Your task to perform on an android device: Show the shopping cart on bestbuy.com. Add macbook pro 15 inch to the cart on bestbuy.com, then select checkout. Image 0: 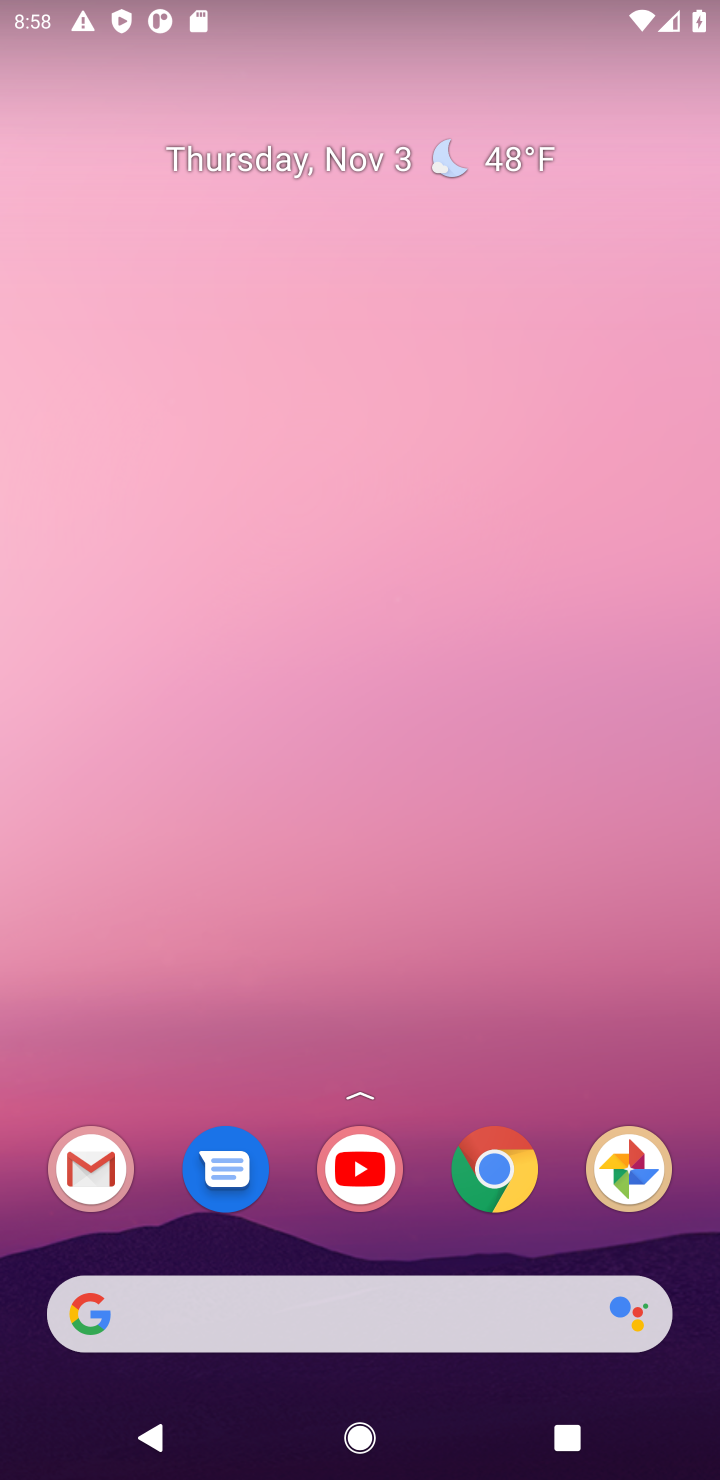
Step 0: drag from (402, 1237) to (455, 206)
Your task to perform on an android device: Show the shopping cart on bestbuy.com. Add macbook pro 15 inch to the cart on bestbuy.com, then select checkout. Image 1: 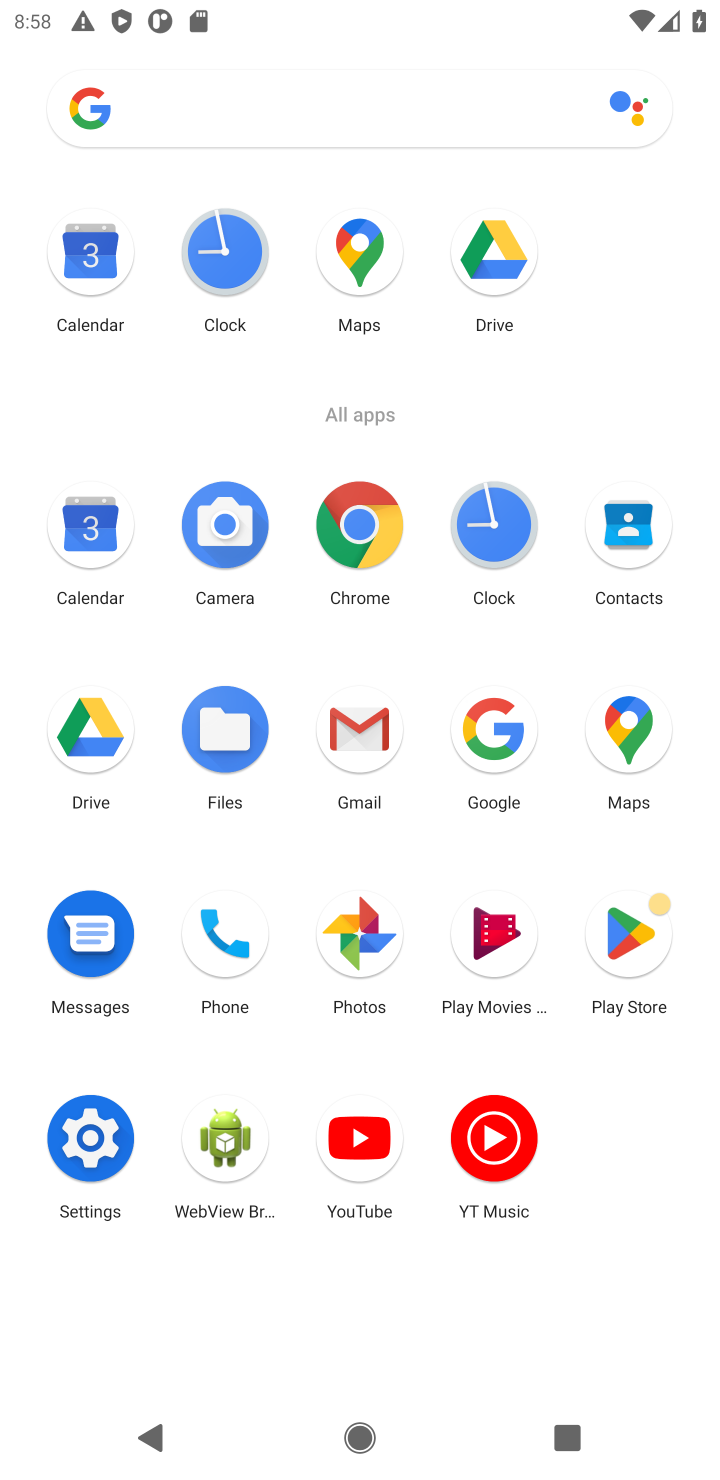
Step 1: click (362, 533)
Your task to perform on an android device: Show the shopping cart on bestbuy.com. Add macbook pro 15 inch to the cart on bestbuy.com, then select checkout. Image 2: 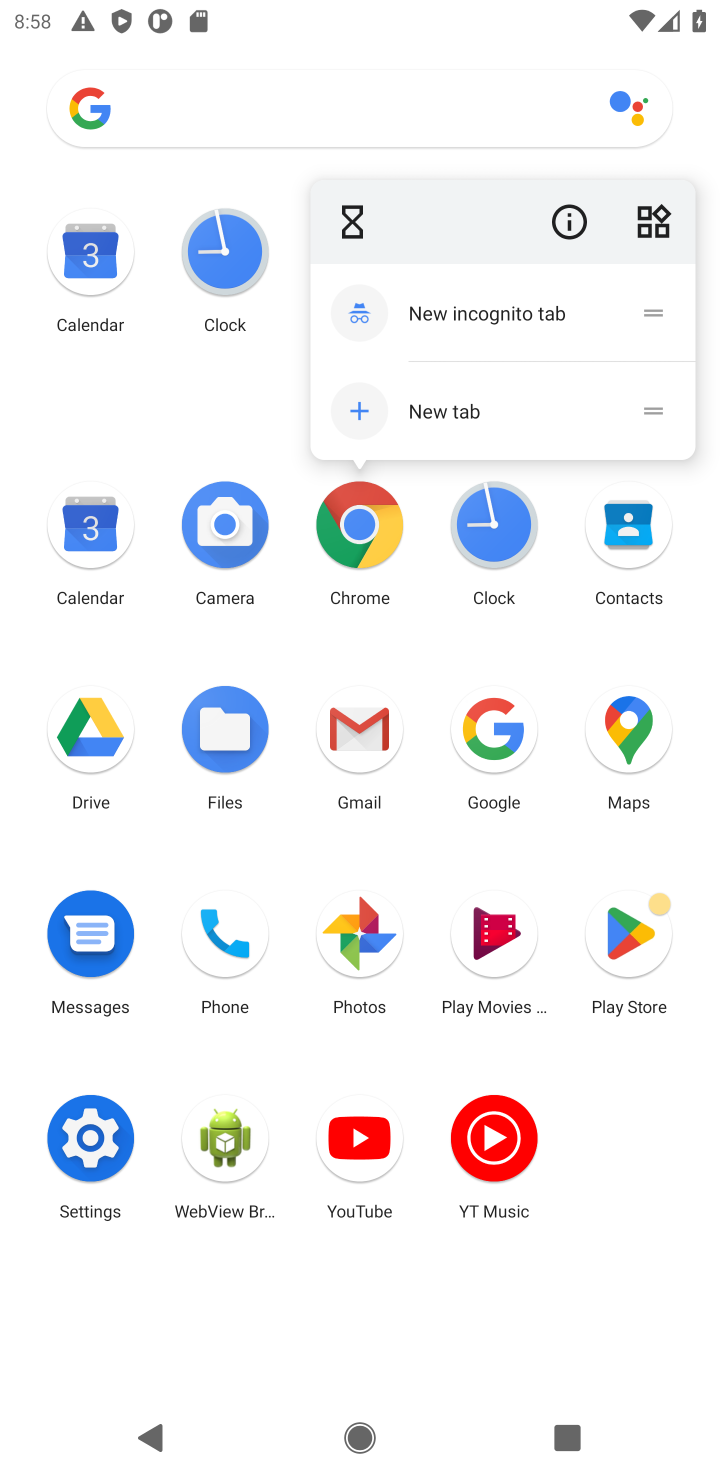
Step 2: click (356, 531)
Your task to perform on an android device: Show the shopping cart on bestbuy.com. Add macbook pro 15 inch to the cart on bestbuy.com, then select checkout. Image 3: 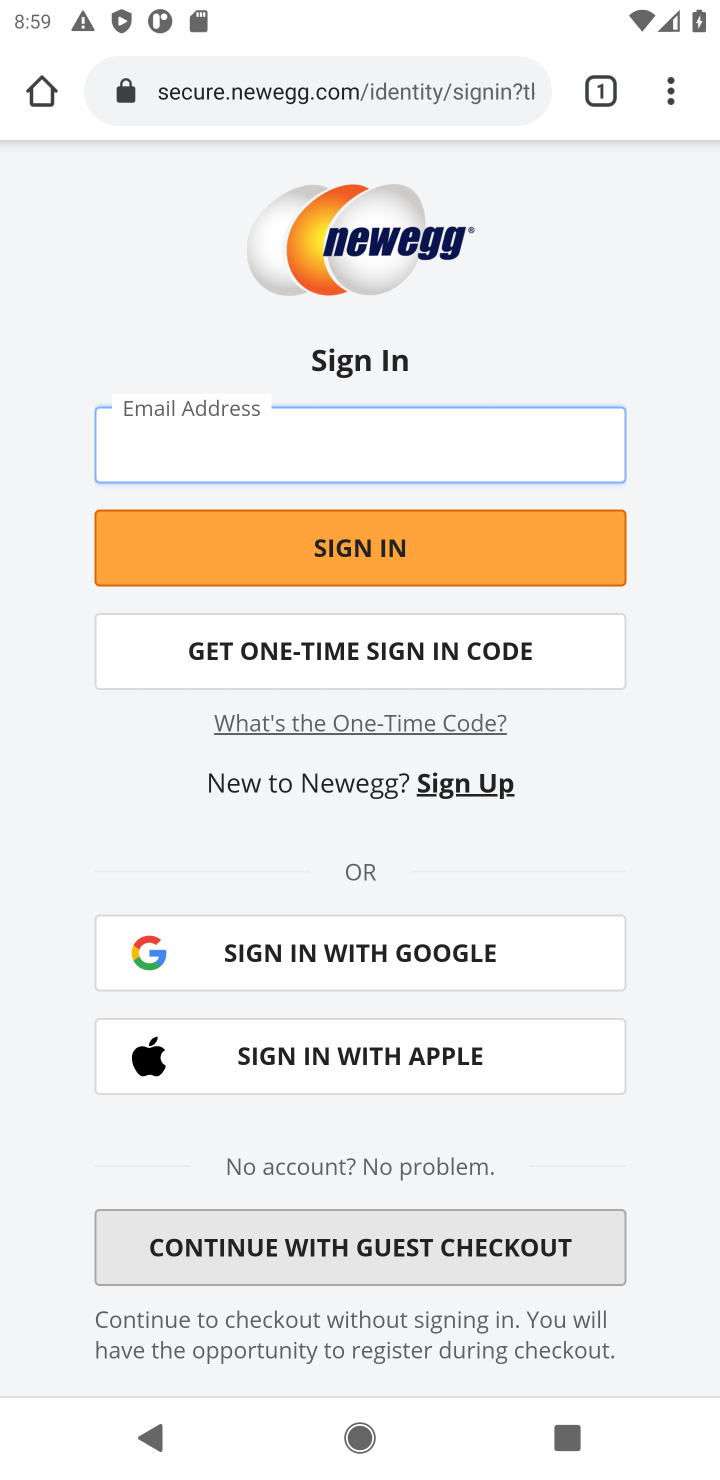
Step 3: click (286, 83)
Your task to perform on an android device: Show the shopping cart on bestbuy.com. Add macbook pro 15 inch to the cart on bestbuy.com, then select checkout. Image 4: 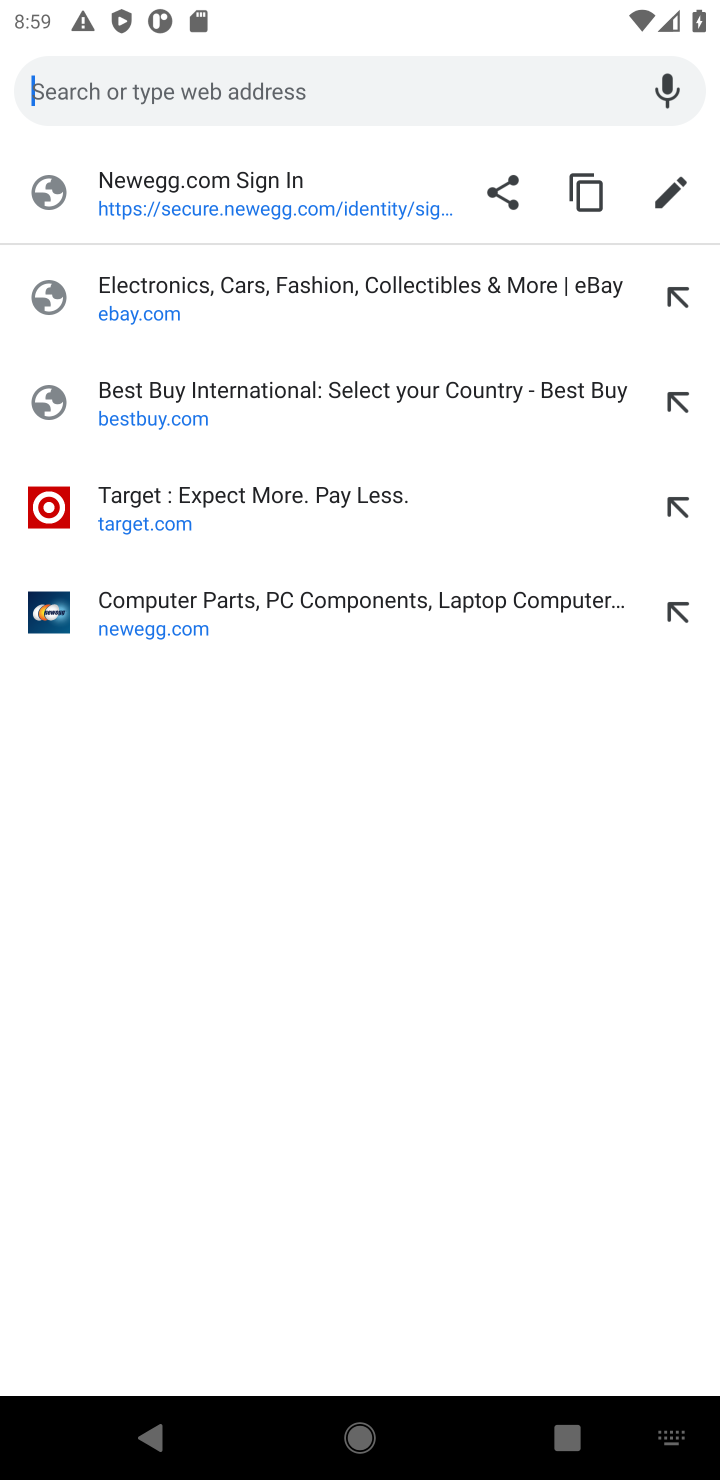
Step 4: type "bestfbuy.com"
Your task to perform on an android device: Show the shopping cart on bestbuy.com. Add macbook pro 15 inch to the cart on bestbuy.com, then select checkout. Image 5: 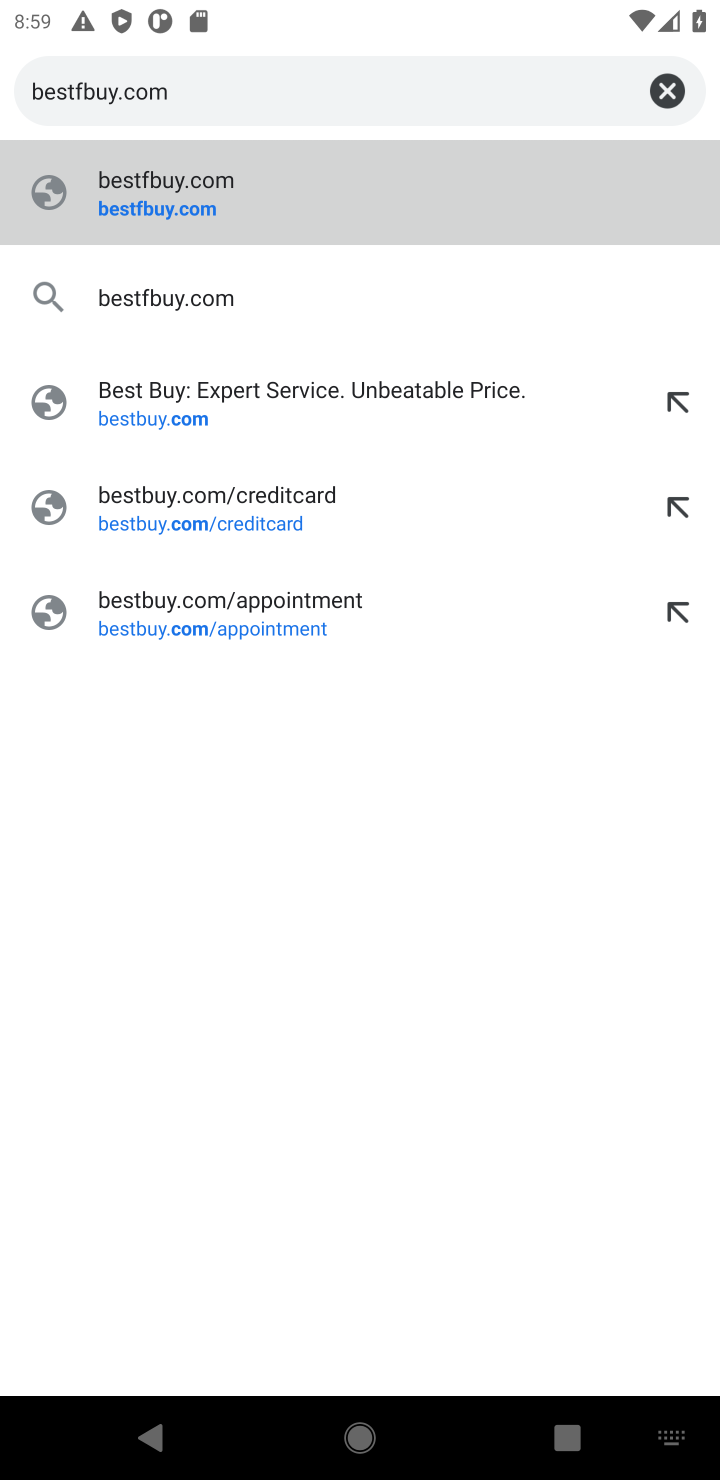
Step 5: press enter
Your task to perform on an android device: Show the shopping cart on bestbuy.com. Add macbook pro 15 inch to the cart on bestbuy.com, then select checkout. Image 6: 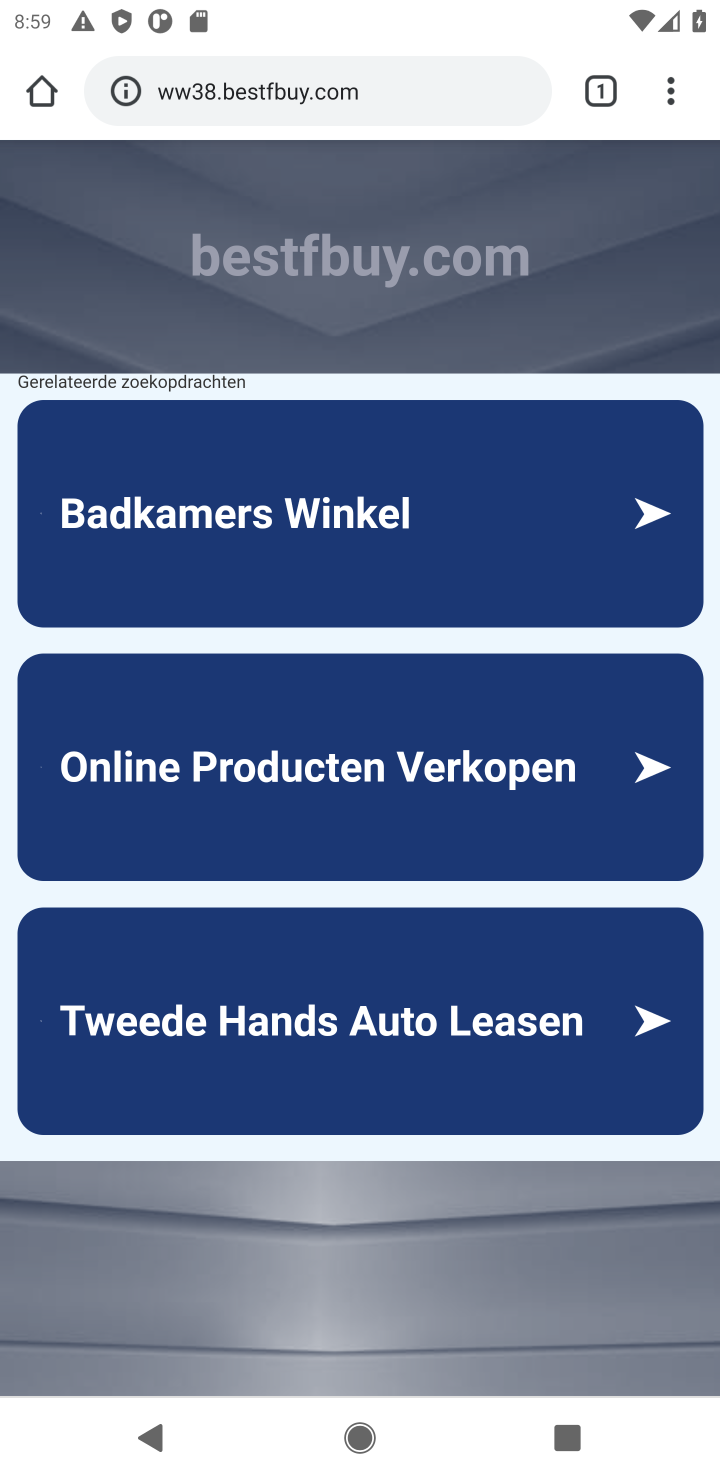
Step 6: click (369, 88)
Your task to perform on an android device: Show the shopping cart on bestbuy.com. Add macbook pro 15 inch to the cart on bestbuy.com, then select checkout. Image 7: 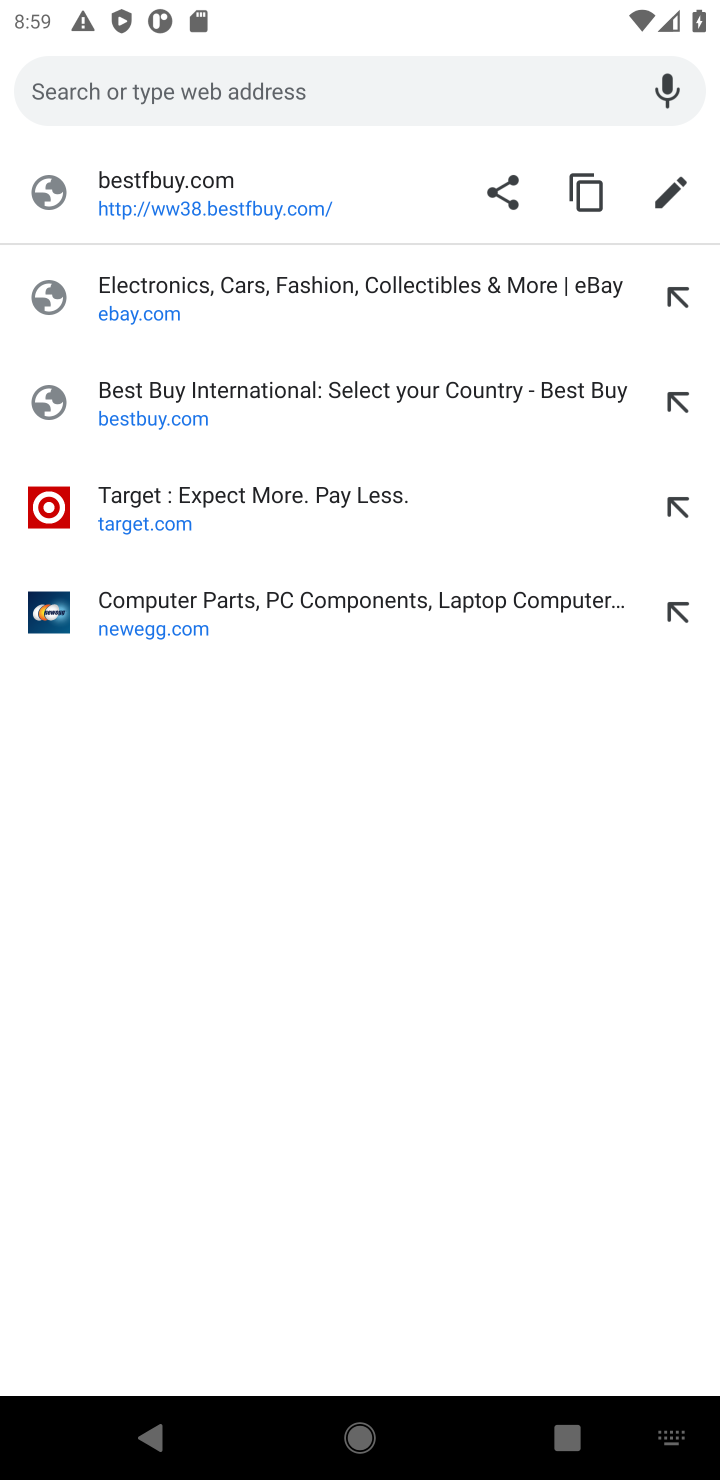
Step 7: type "bestbuy.com"
Your task to perform on an android device: Show the shopping cart on bestbuy.com. Add macbook pro 15 inch to the cart on bestbuy.com, then select checkout. Image 8: 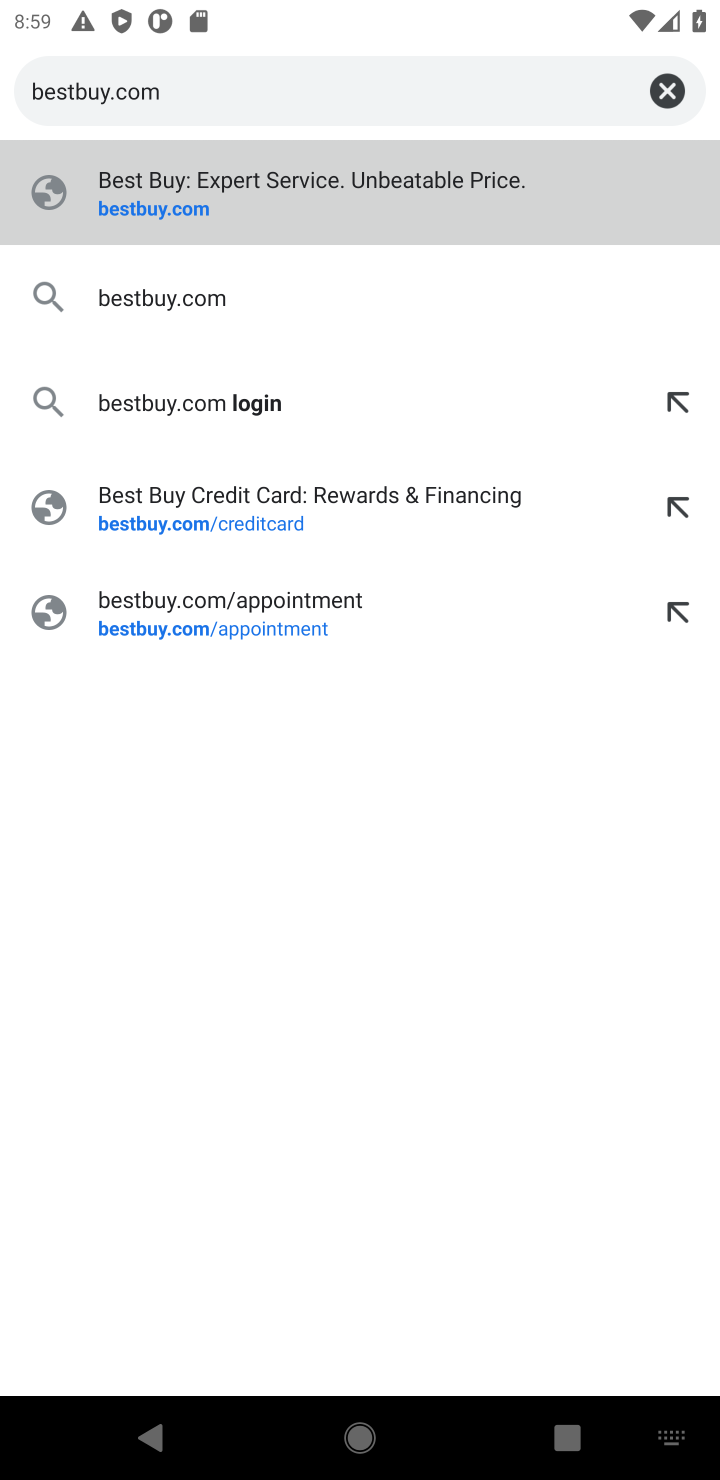
Step 8: press enter
Your task to perform on an android device: Show the shopping cart on bestbuy.com. Add macbook pro 15 inch to the cart on bestbuy.com, then select checkout. Image 9: 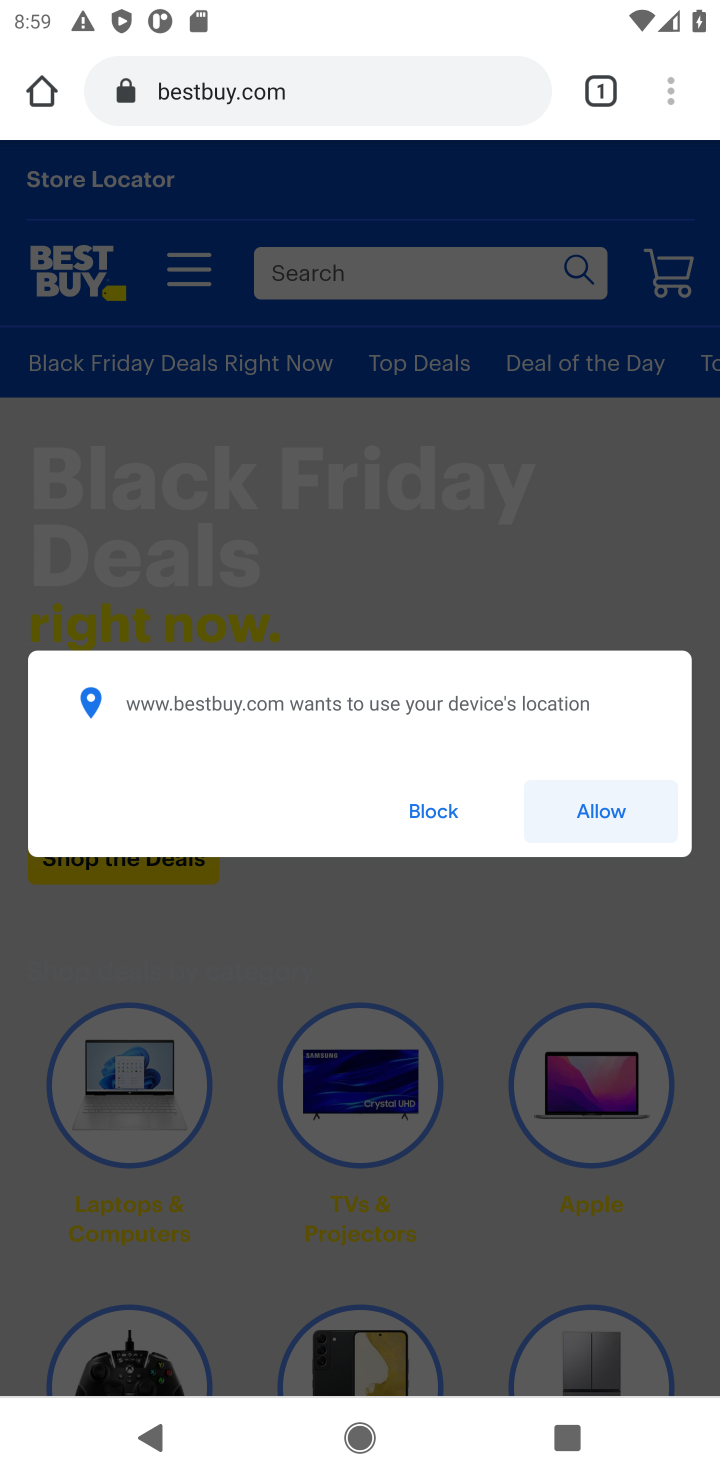
Step 9: click (429, 802)
Your task to perform on an android device: Show the shopping cart on bestbuy.com. Add macbook pro 15 inch to the cart on bestbuy.com, then select checkout. Image 10: 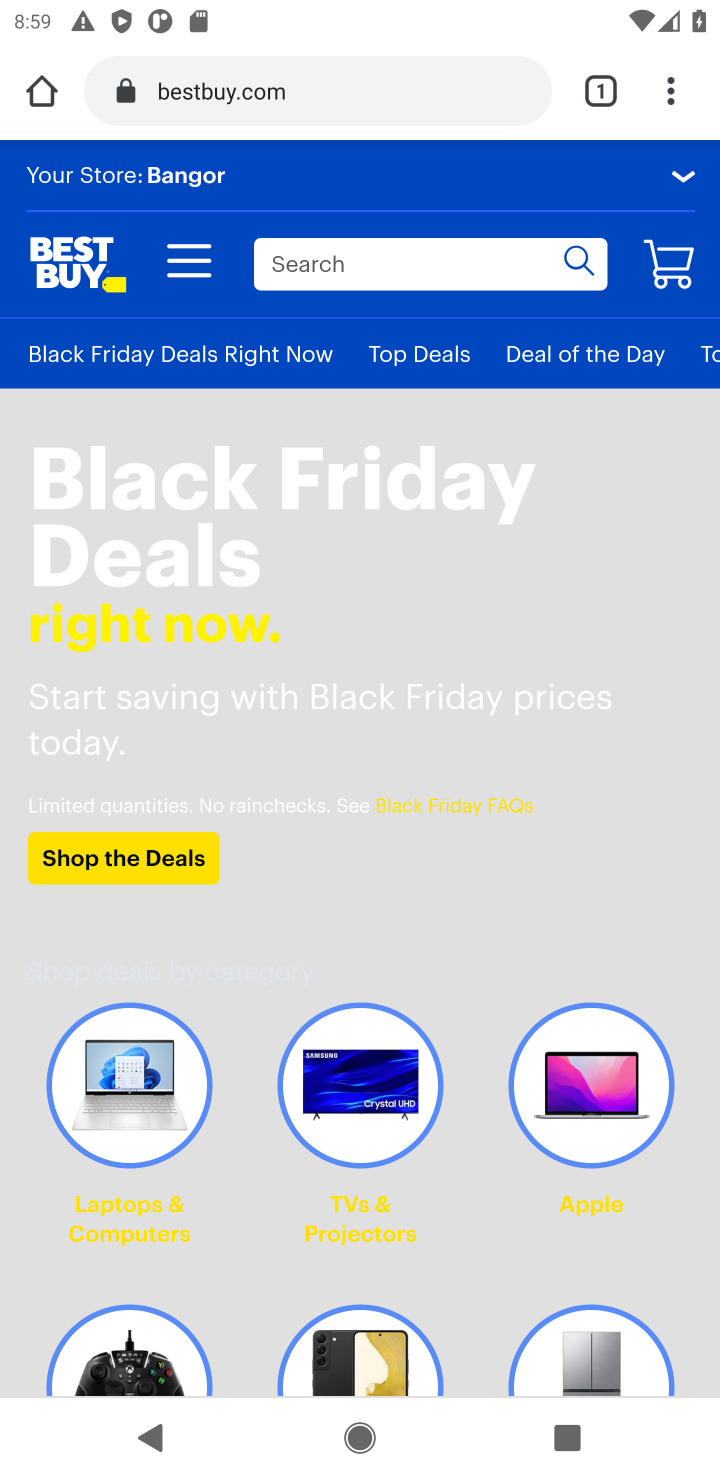
Step 10: click (666, 267)
Your task to perform on an android device: Show the shopping cart on bestbuy.com. Add macbook pro 15 inch to the cart on bestbuy.com, then select checkout. Image 11: 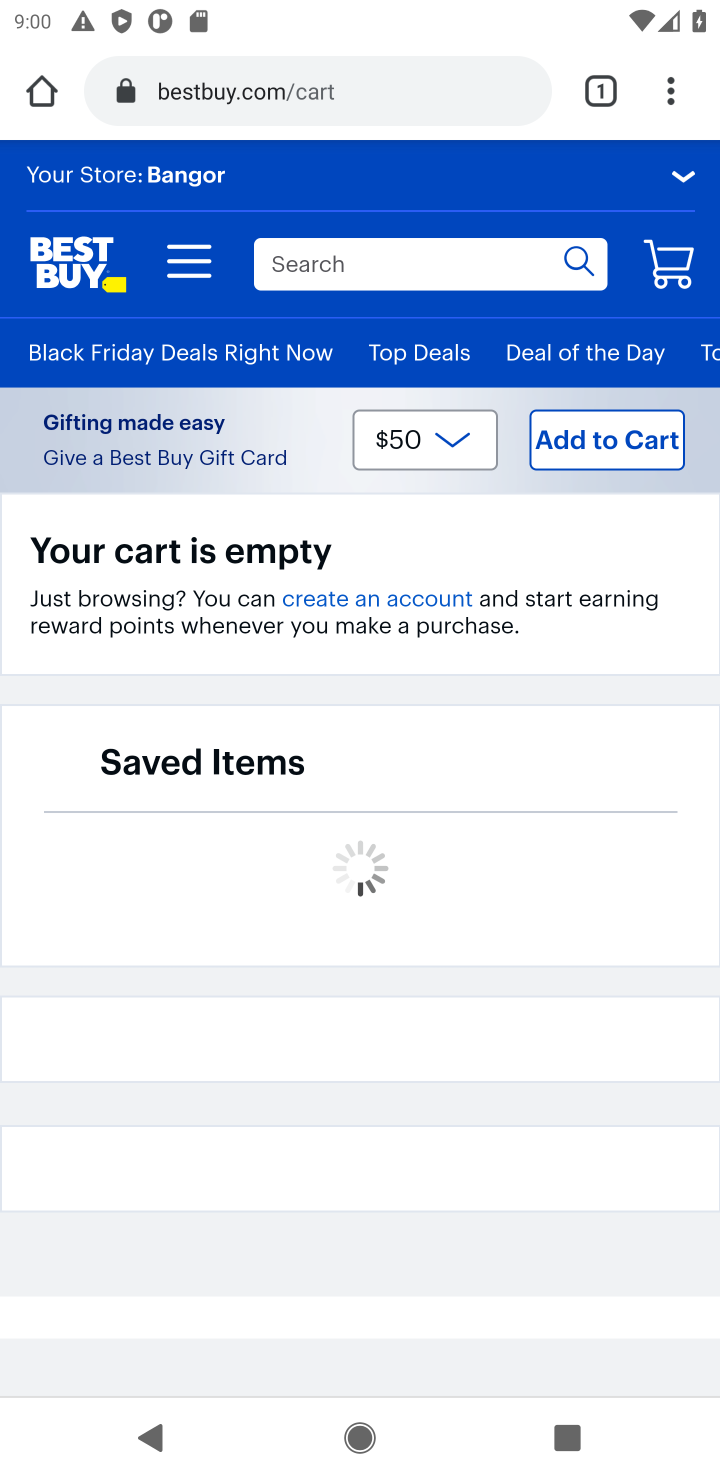
Step 11: click (285, 260)
Your task to perform on an android device: Show the shopping cart on bestbuy.com. Add macbook pro 15 inch to the cart on bestbuy.com, then select checkout. Image 12: 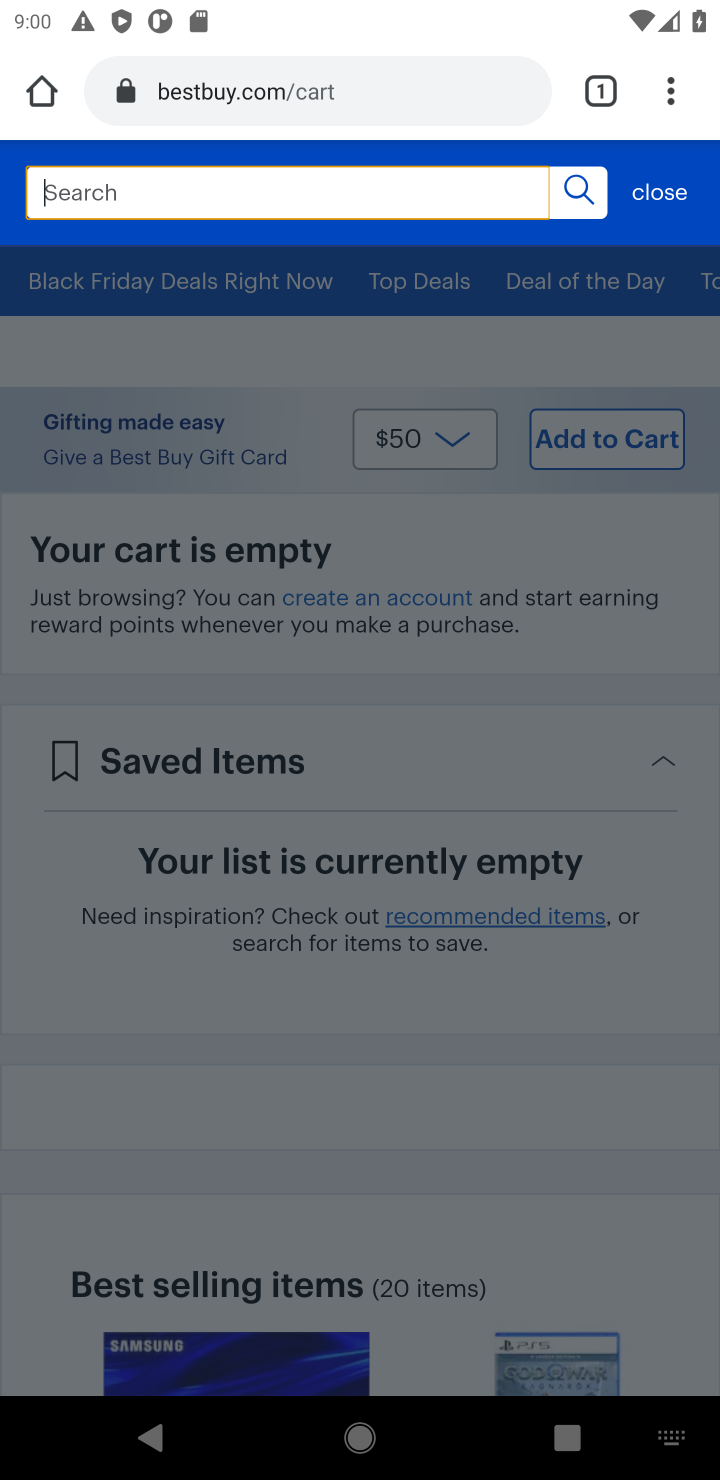
Step 12: type "add macbook pro 15"
Your task to perform on an android device: Show the shopping cart on bestbuy.com. Add macbook pro 15 inch to the cart on bestbuy.com, then select checkout. Image 13: 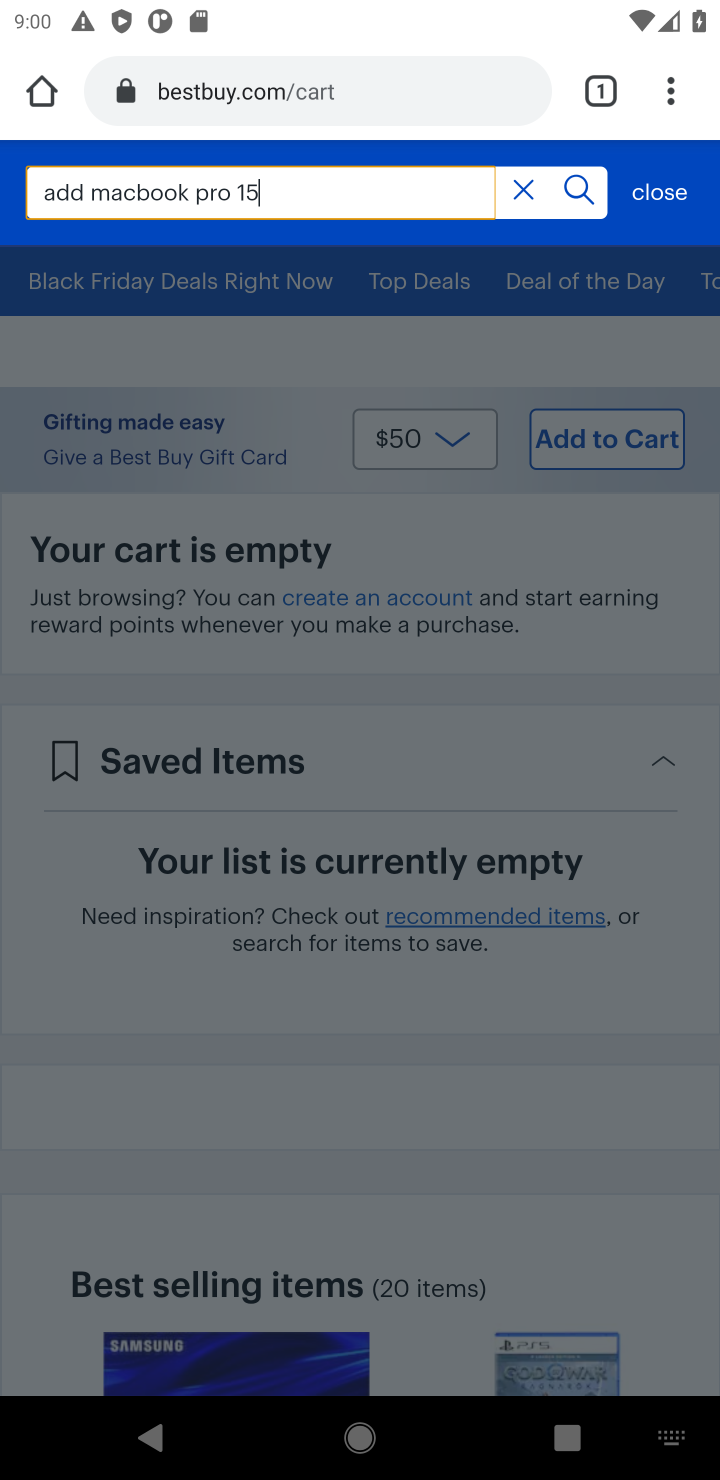
Step 13: press enter
Your task to perform on an android device: Show the shopping cart on bestbuy.com. Add macbook pro 15 inch to the cart on bestbuy.com, then select checkout. Image 14: 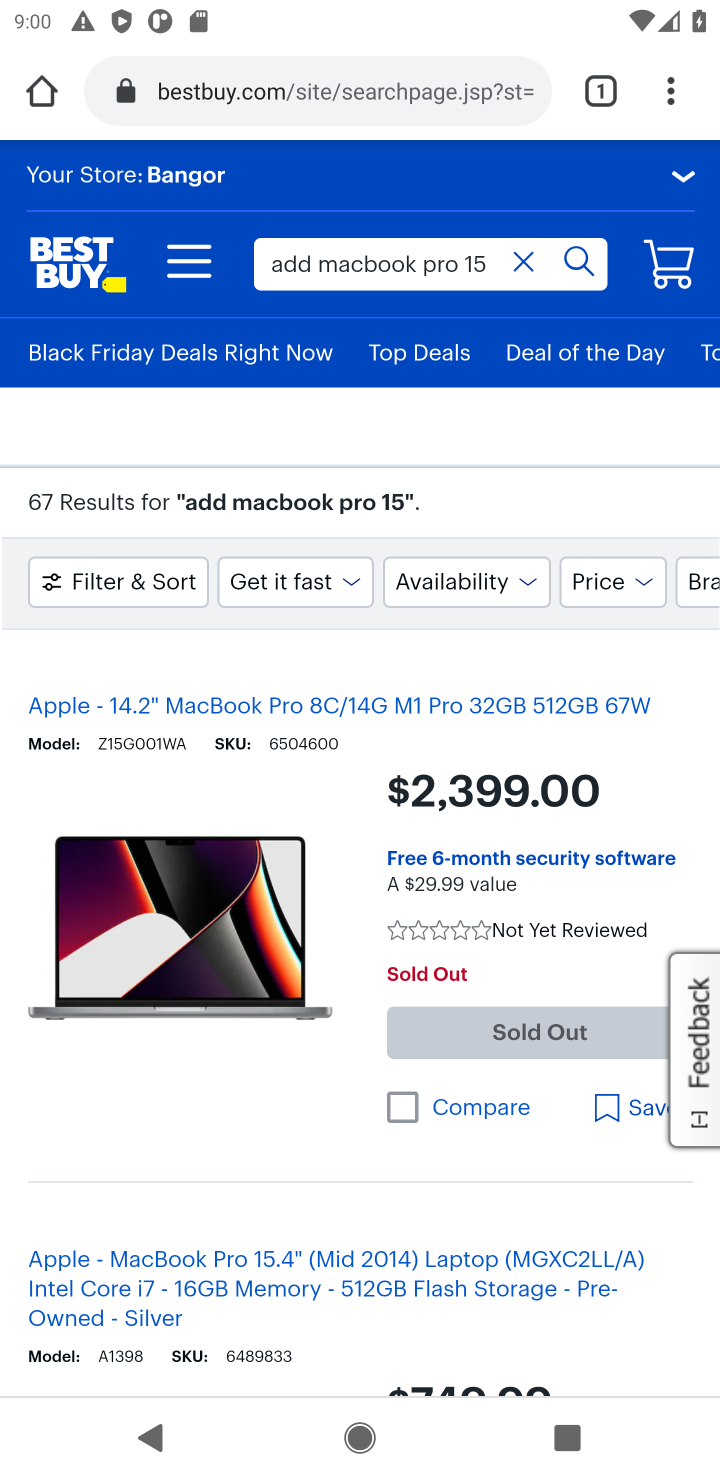
Step 14: drag from (350, 1263) to (271, 403)
Your task to perform on an android device: Show the shopping cart on bestbuy.com. Add macbook pro 15 inch to the cart on bestbuy.com, then select checkout. Image 15: 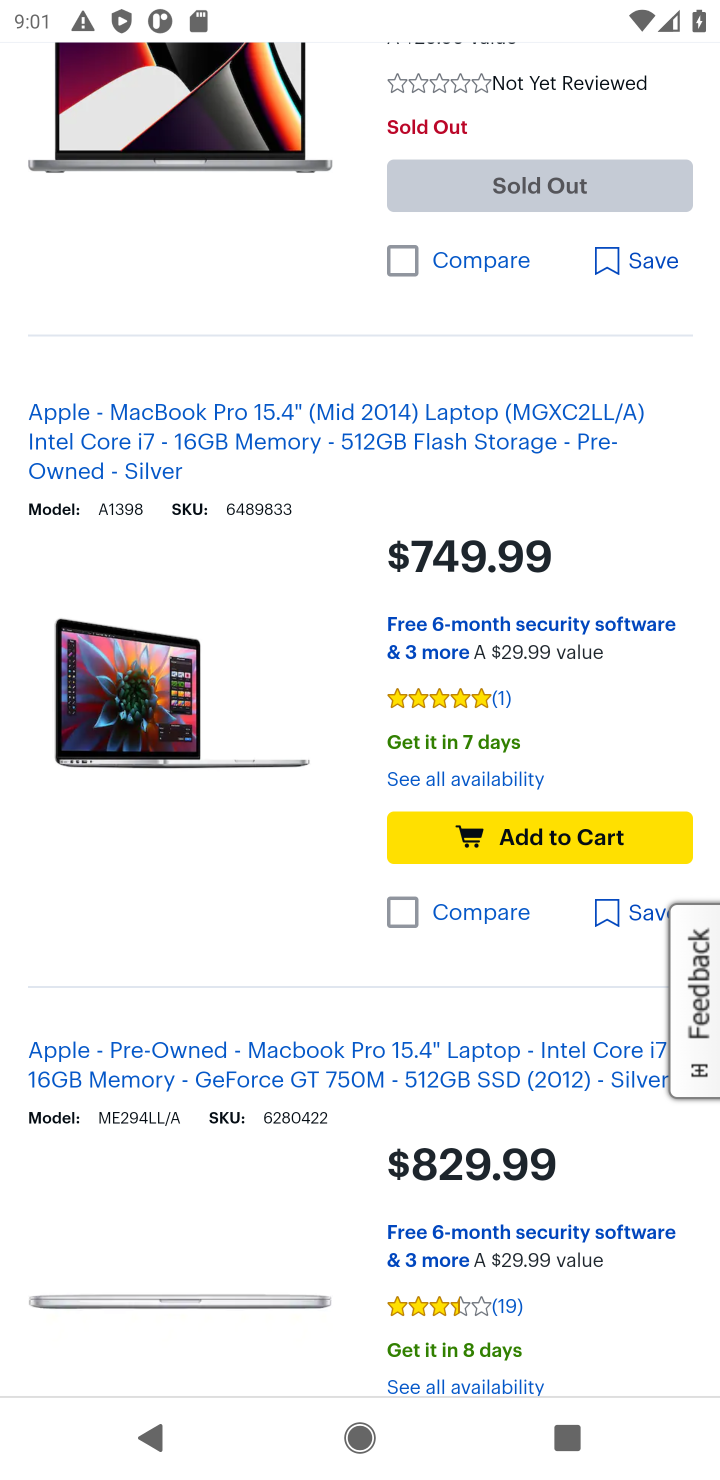
Step 15: drag from (218, 1174) to (196, 405)
Your task to perform on an android device: Show the shopping cart on bestbuy.com. Add macbook pro 15 inch to the cart on bestbuy.com, then select checkout. Image 16: 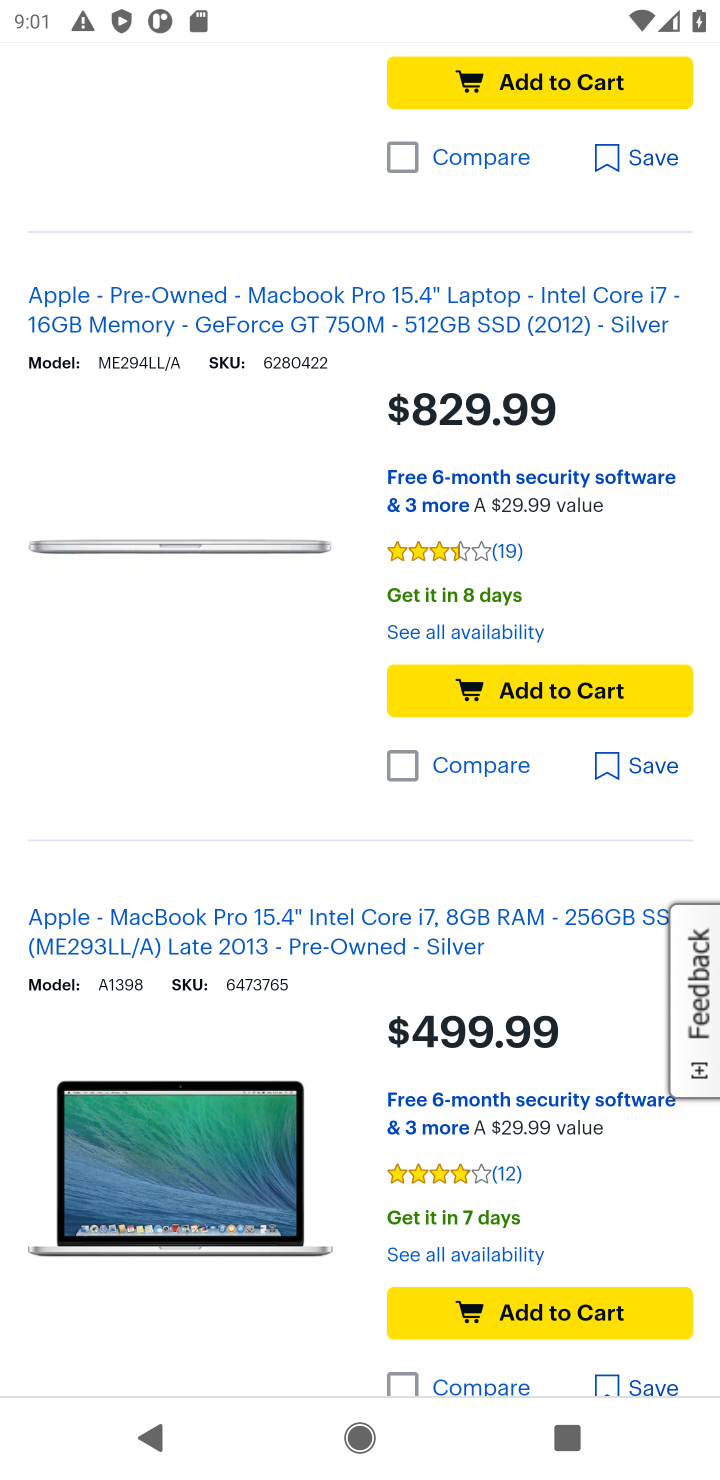
Step 16: drag from (329, 1160) to (389, 542)
Your task to perform on an android device: Show the shopping cart on bestbuy.com. Add macbook pro 15 inch to the cart on bestbuy.com, then select checkout. Image 17: 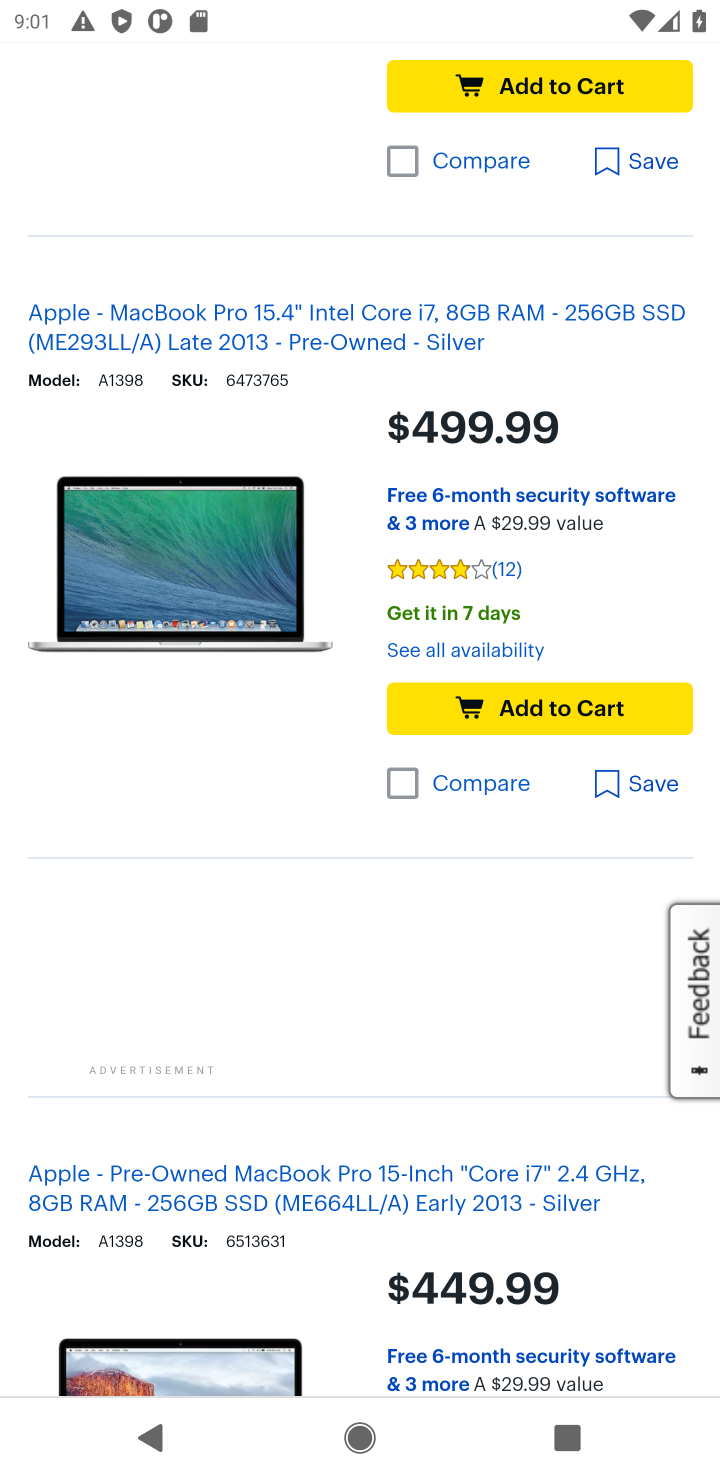
Step 17: drag from (456, 1062) to (336, 370)
Your task to perform on an android device: Show the shopping cart on bestbuy.com. Add macbook pro 15 inch to the cart on bestbuy.com, then select checkout. Image 18: 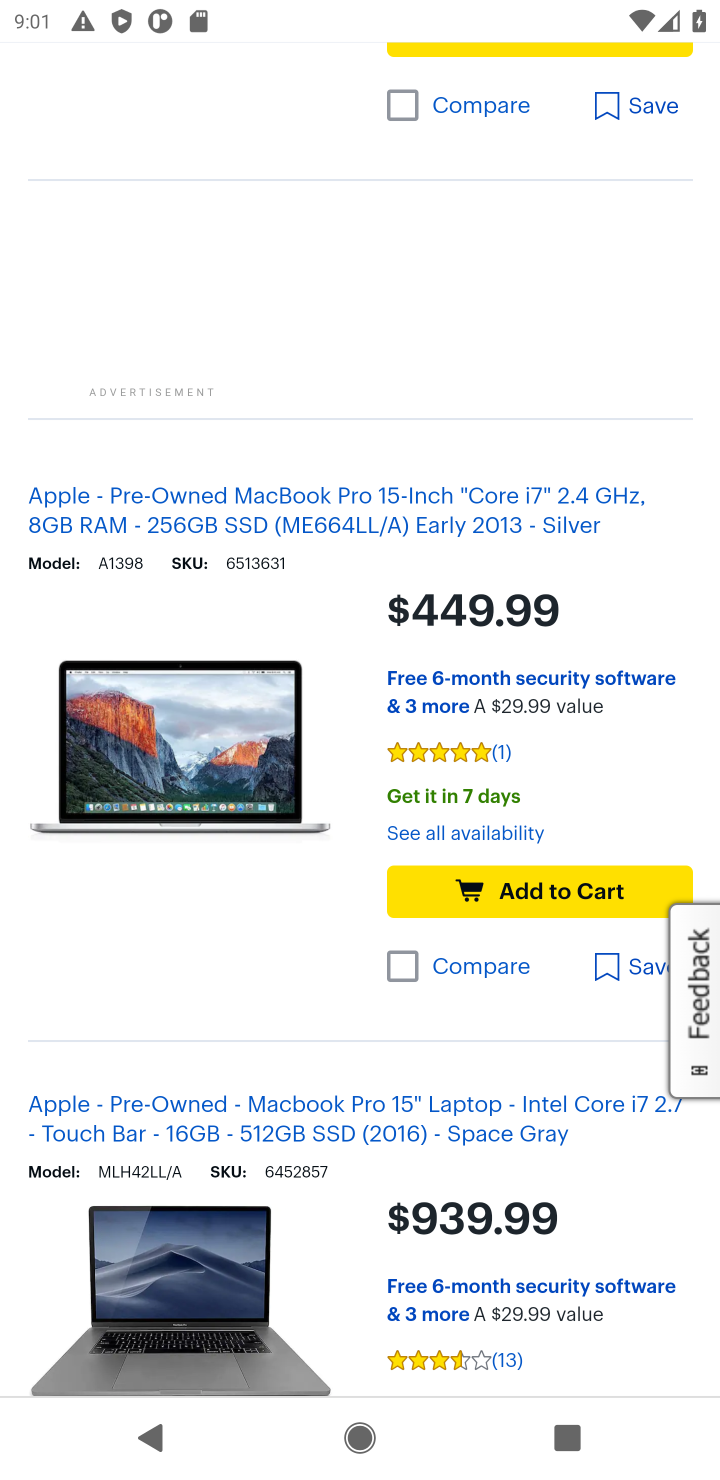
Step 18: drag from (374, 503) to (416, 1092)
Your task to perform on an android device: Show the shopping cart on bestbuy.com. Add macbook pro 15 inch to the cart on bestbuy.com, then select checkout. Image 19: 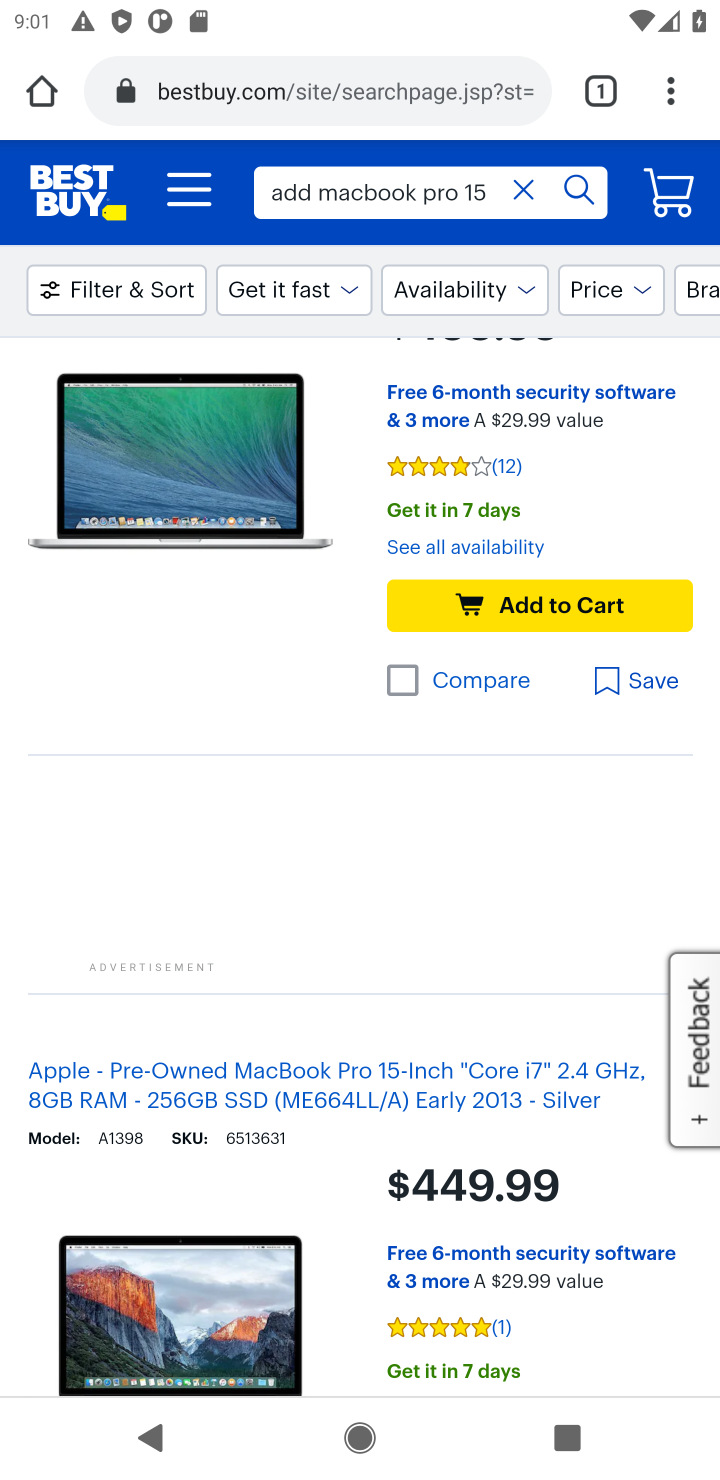
Step 19: drag from (305, 471) to (328, 255)
Your task to perform on an android device: Show the shopping cart on bestbuy.com. Add macbook pro 15 inch to the cart on bestbuy.com, then select checkout. Image 20: 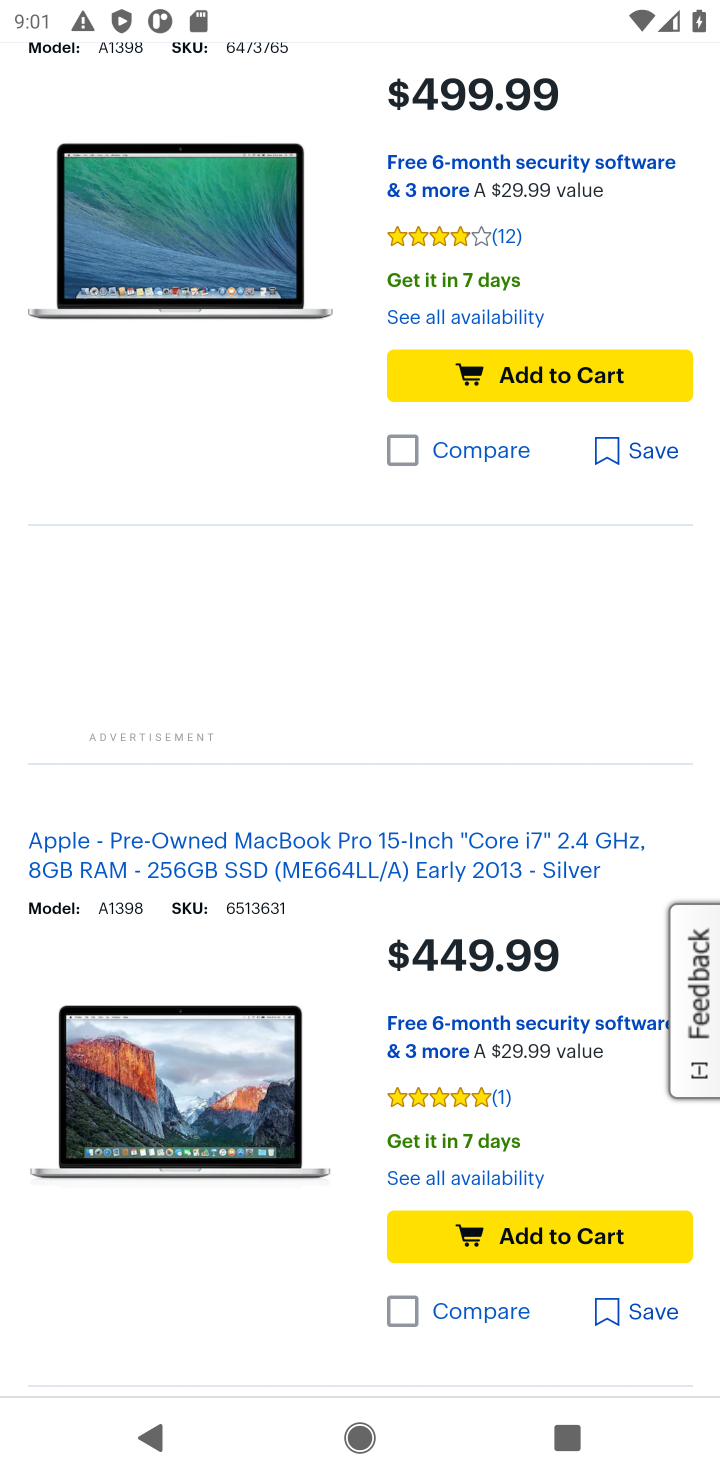
Step 20: drag from (365, 812) to (397, 552)
Your task to perform on an android device: Show the shopping cart on bestbuy.com. Add macbook pro 15 inch to the cart on bestbuy.com, then select checkout. Image 21: 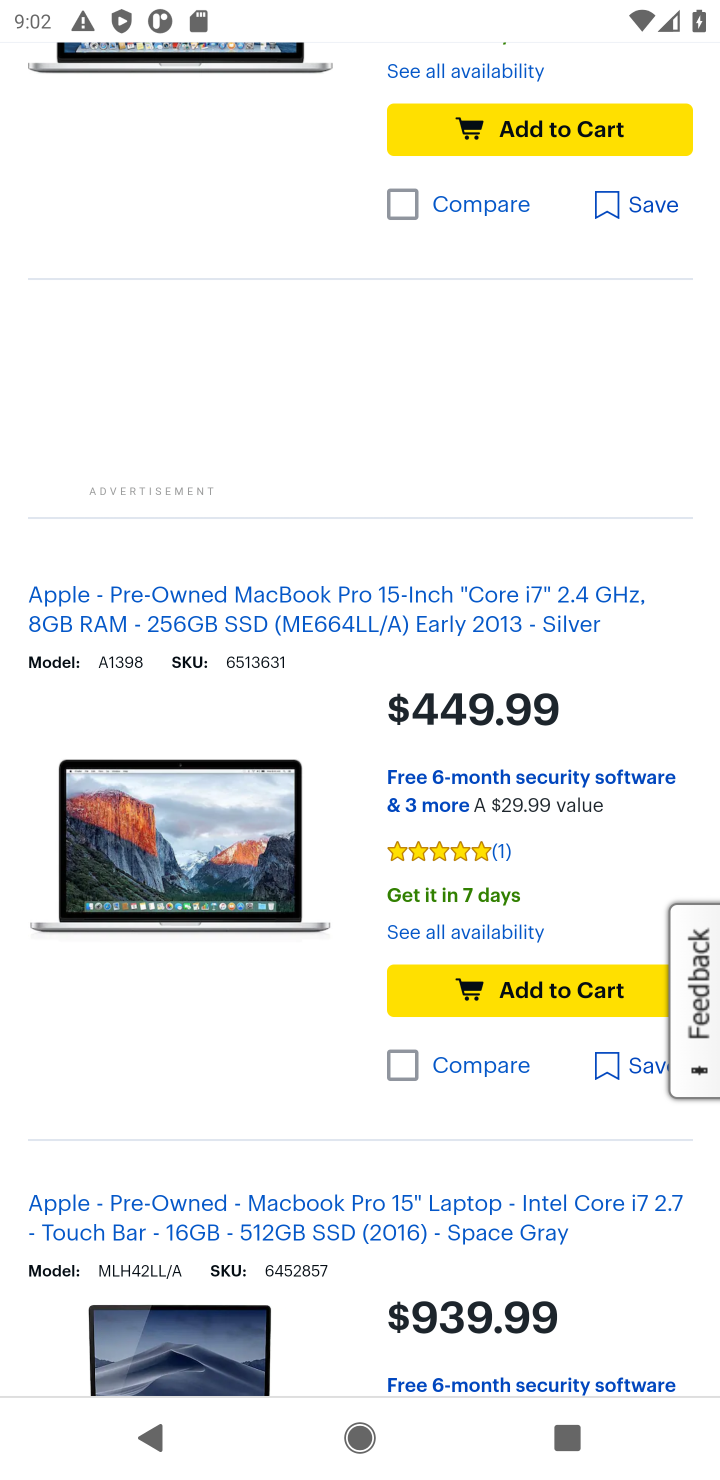
Step 21: click (521, 988)
Your task to perform on an android device: Show the shopping cart on bestbuy.com. Add macbook pro 15 inch to the cart on bestbuy.com, then select checkout. Image 22: 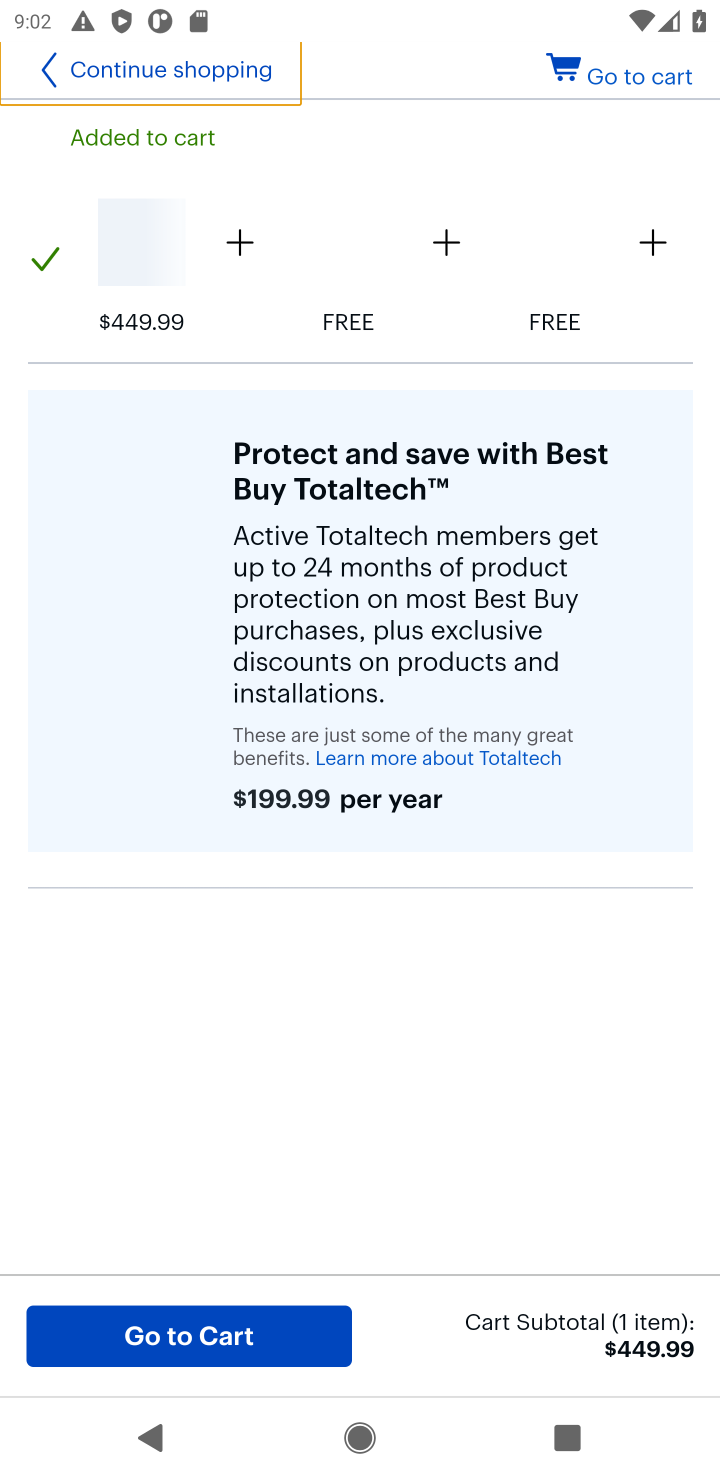
Step 22: click (230, 1317)
Your task to perform on an android device: Show the shopping cart on bestbuy.com. Add macbook pro 15 inch to the cart on bestbuy.com, then select checkout. Image 23: 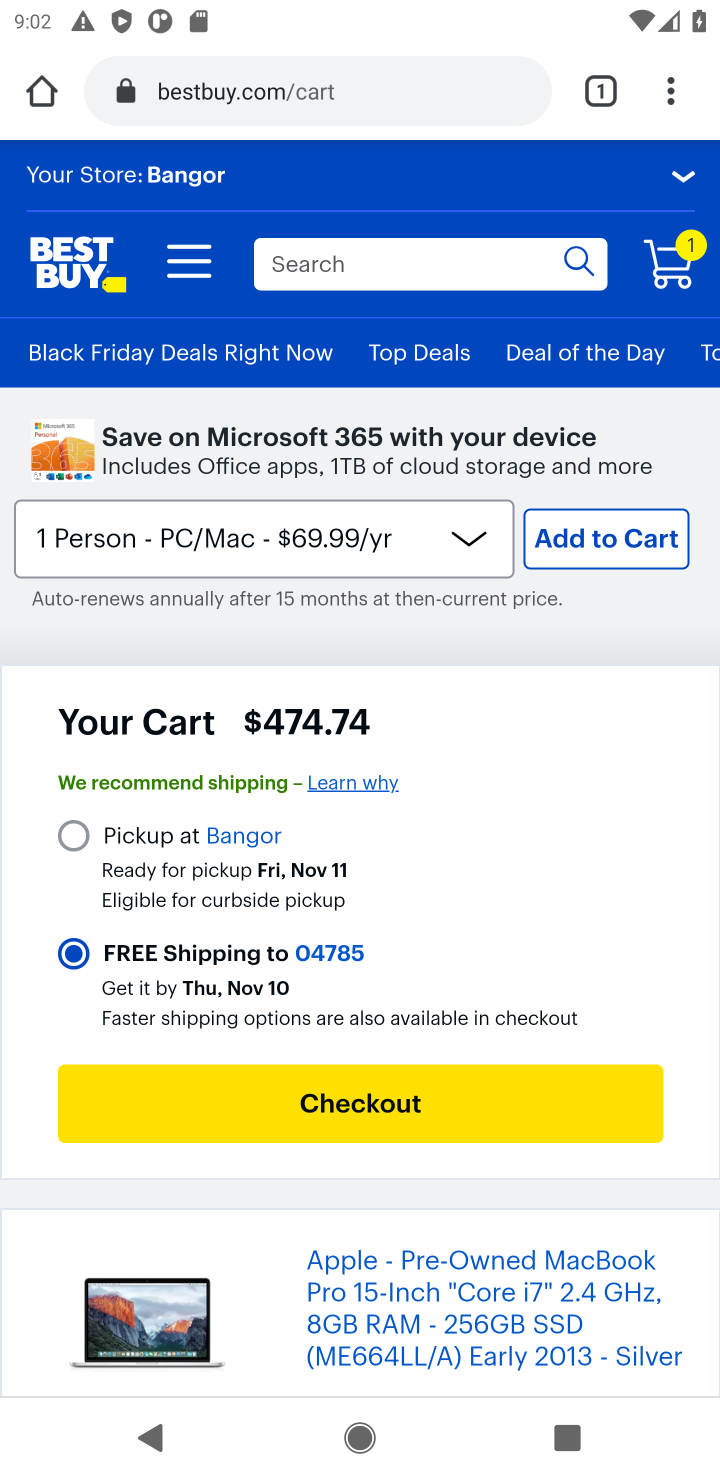
Step 23: click (379, 1081)
Your task to perform on an android device: Show the shopping cart on bestbuy.com. Add macbook pro 15 inch to the cart on bestbuy.com, then select checkout. Image 24: 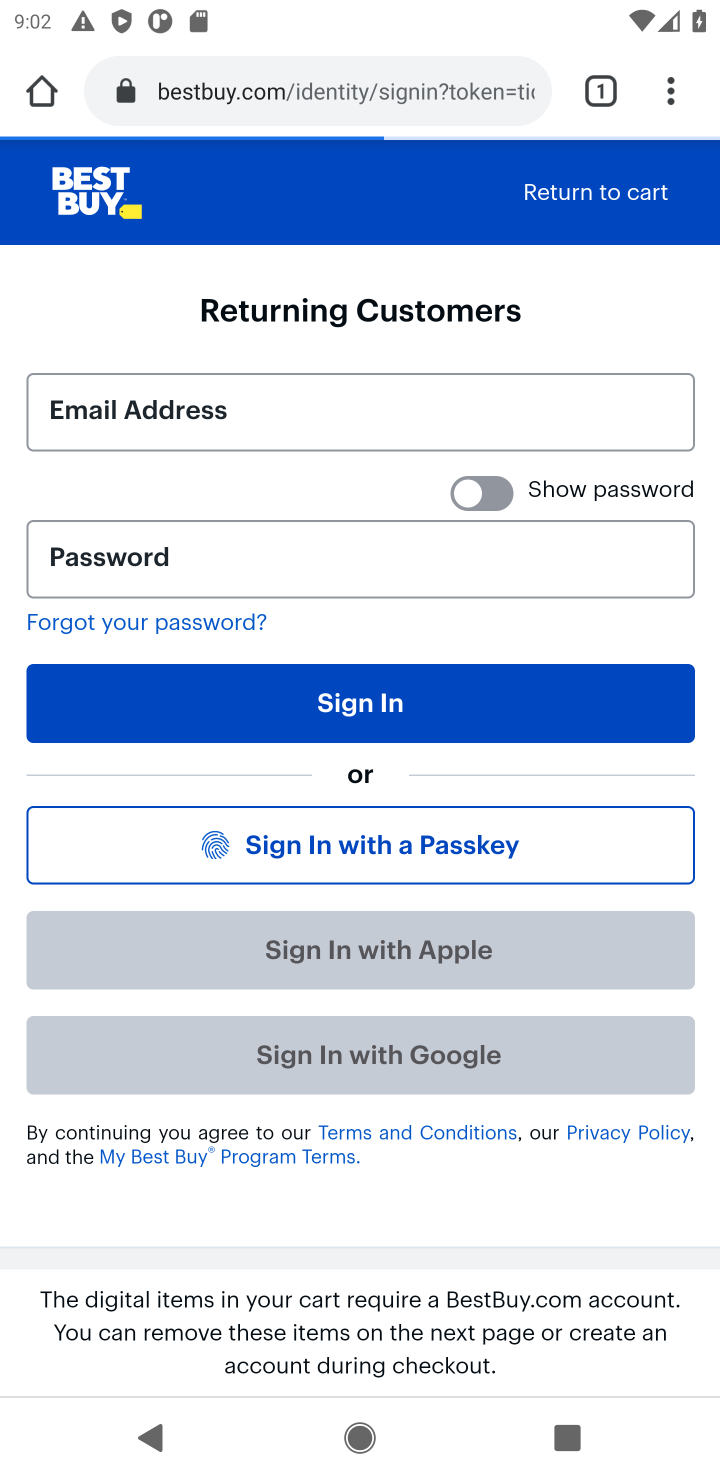
Step 24: task complete